Your task to perform on an android device: toggle sleep mode Image 0: 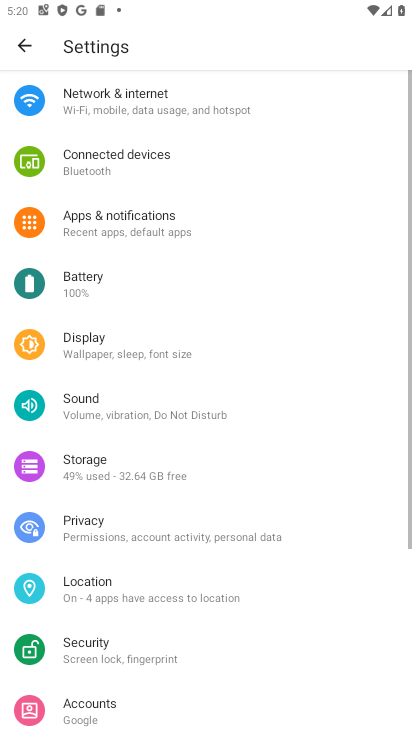
Step 0: press home button
Your task to perform on an android device: toggle sleep mode Image 1: 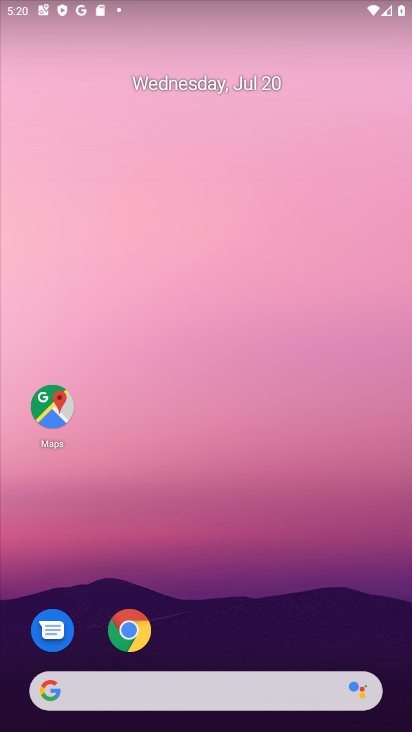
Step 1: drag from (192, 685) to (306, 54)
Your task to perform on an android device: toggle sleep mode Image 2: 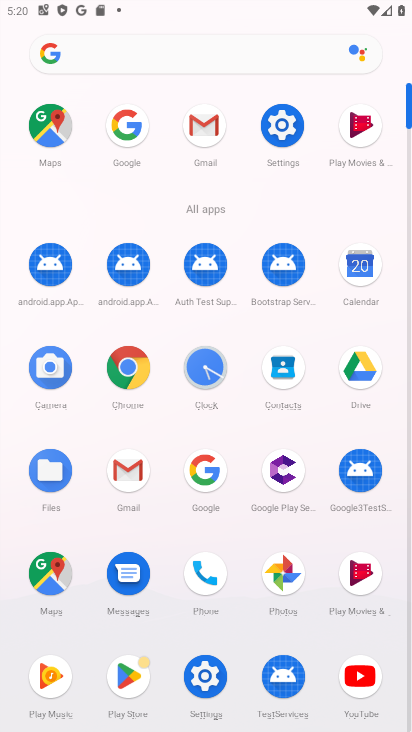
Step 2: click (281, 124)
Your task to perform on an android device: toggle sleep mode Image 3: 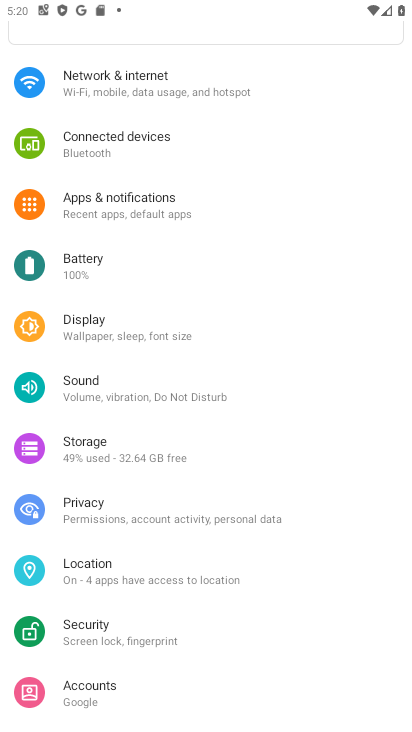
Step 3: click (89, 333)
Your task to perform on an android device: toggle sleep mode Image 4: 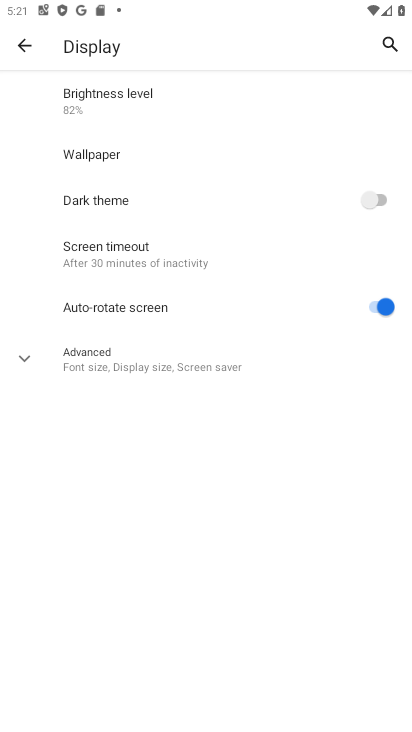
Step 4: click (162, 259)
Your task to perform on an android device: toggle sleep mode Image 5: 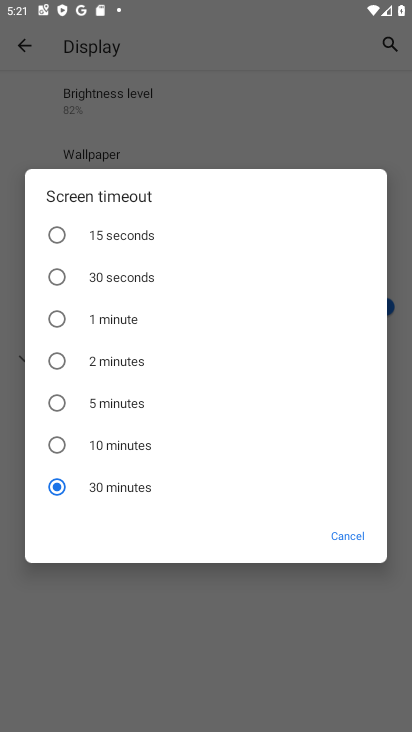
Step 5: click (344, 536)
Your task to perform on an android device: toggle sleep mode Image 6: 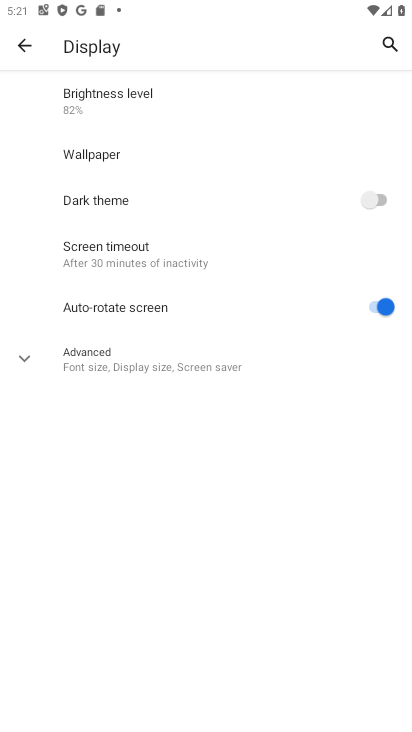
Step 6: task complete